Your task to perform on an android device: Open calendar and show me the first week of next month Image 0: 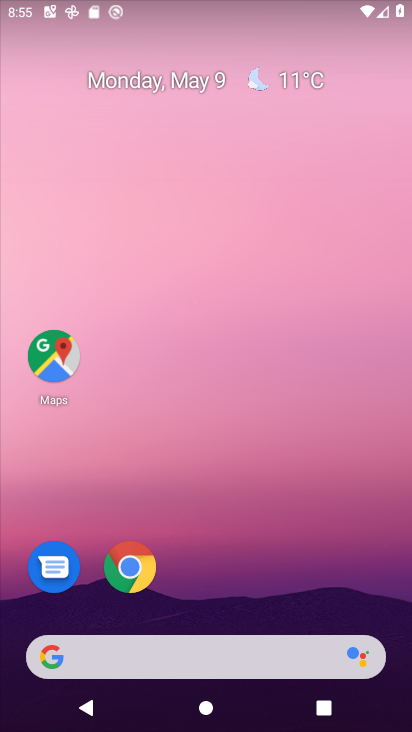
Step 0: drag from (232, 552) to (303, 12)
Your task to perform on an android device: Open calendar and show me the first week of next month Image 1: 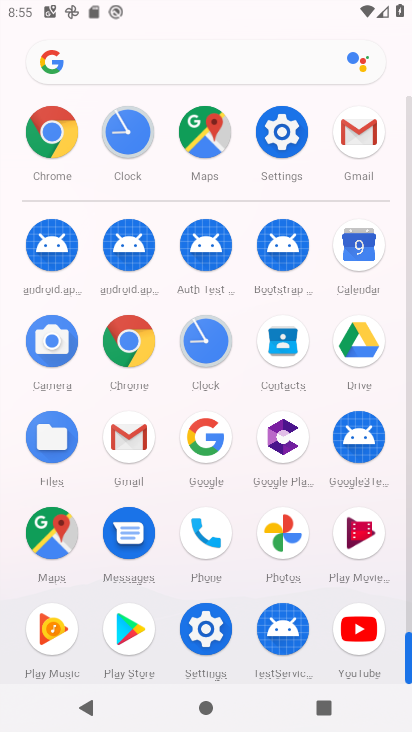
Step 1: click (357, 238)
Your task to perform on an android device: Open calendar and show me the first week of next month Image 2: 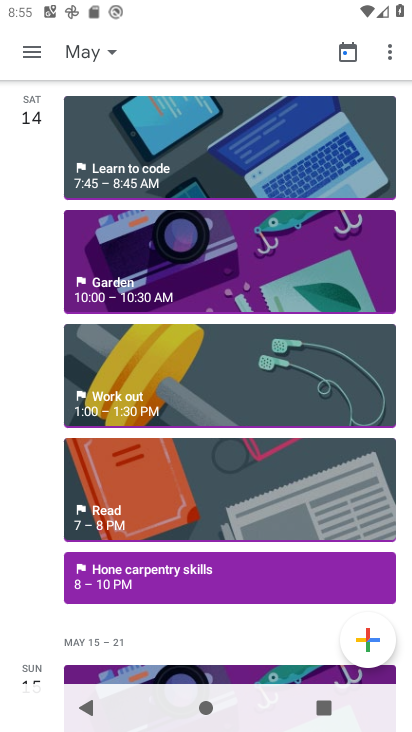
Step 2: click (32, 39)
Your task to perform on an android device: Open calendar and show me the first week of next month Image 3: 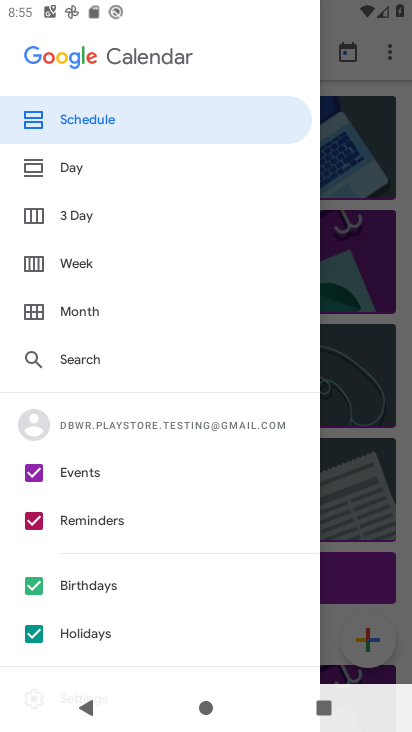
Step 3: click (68, 302)
Your task to perform on an android device: Open calendar and show me the first week of next month Image 4: 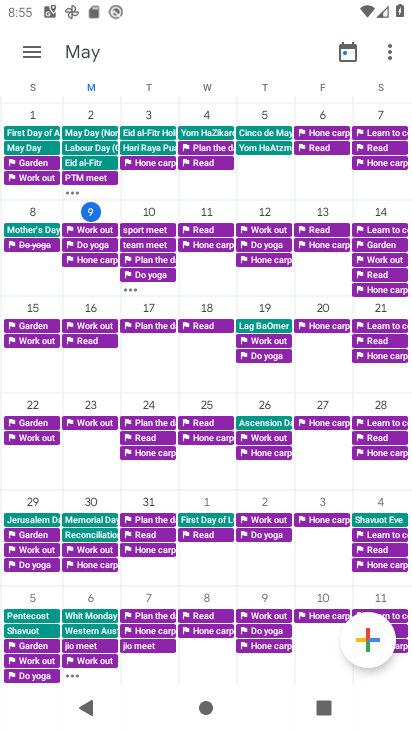
Step 4: drag from (385, 368) to (0, 385)
Your task to perform on an android device: Open calendar and show me the first week of next month Image 5: 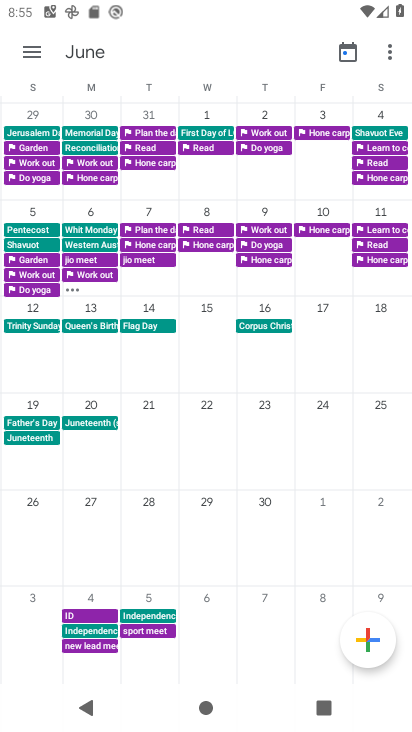
Step 5: click (31, 214)
Your task to perform on an android device: Open calendar and show me the first week of next month Image 6: 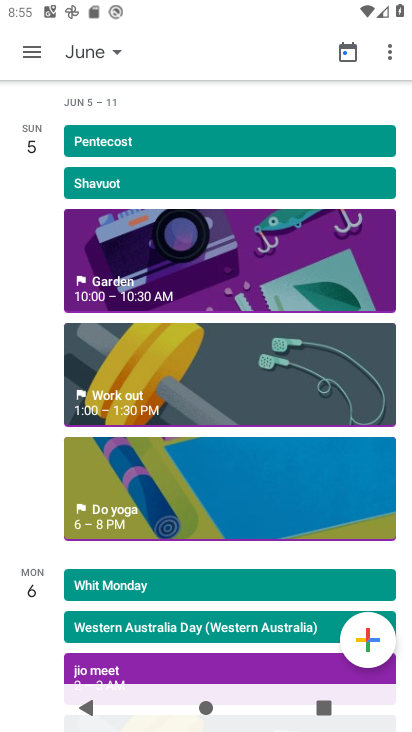
Step 6: click (27, 52)
Your task to perform on an android device: Open calendar and show me the first week of next month Image 7: 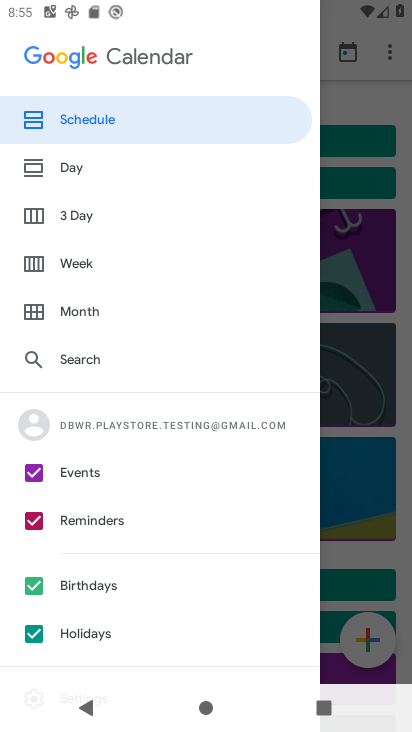
Step 7: click (96, 269)
Your task to perform on an android device: Open calendar and show me the first week of next month Image 8: 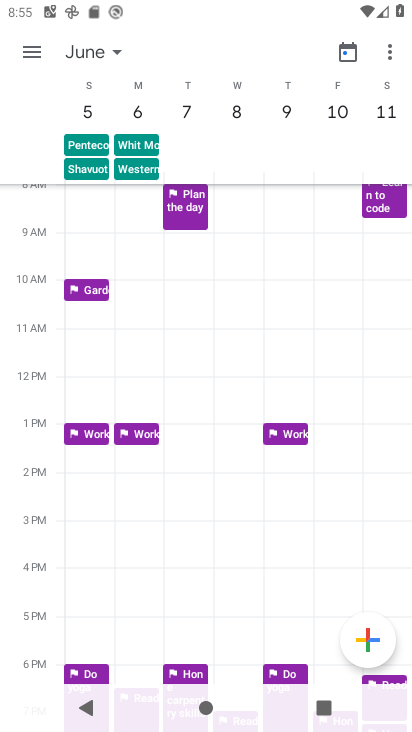
Step 8: task complete